Your task to perform on an android device: turn off translation in the chrome app Image 0: 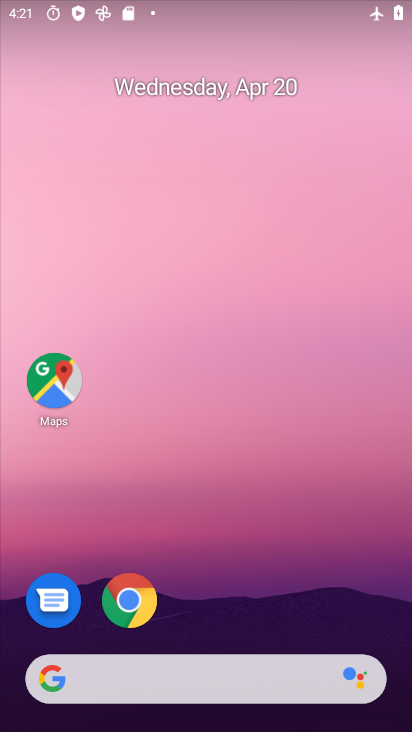
Step 0: click (131, 605)
Your task to perform on an android device: turn off translation in the chrome app Image 1: 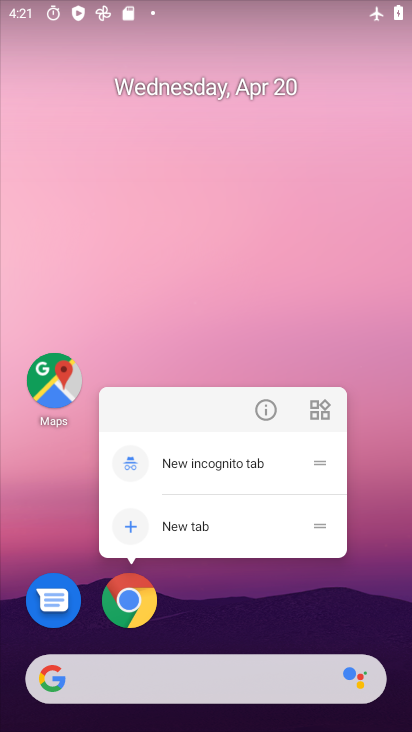
Step 1: click (221, 590)
Your task to perform on an android device: turn off translation in the chrome app Image 2: 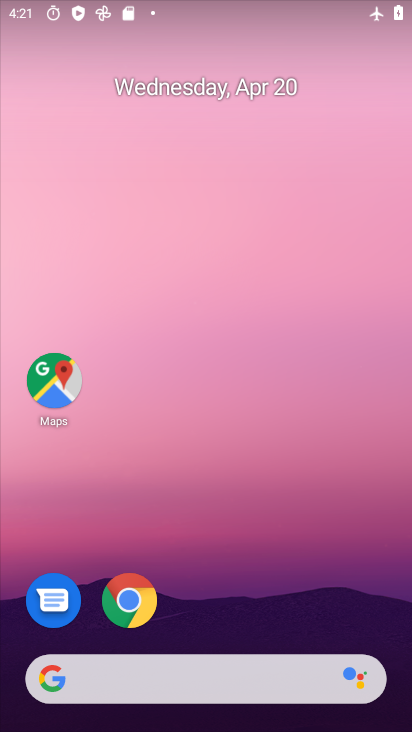
Step 2: drag from (223, 603) to (205, 169)
Your task to perform on an android device: turn off translation in the chrome app Image 3: 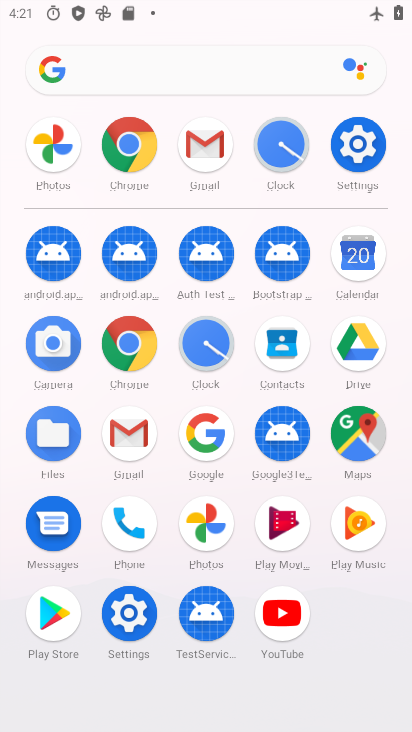
Step 3: click (132, 347)
Your task to perform on an android device: turn off translation in the chrome app Image 4: 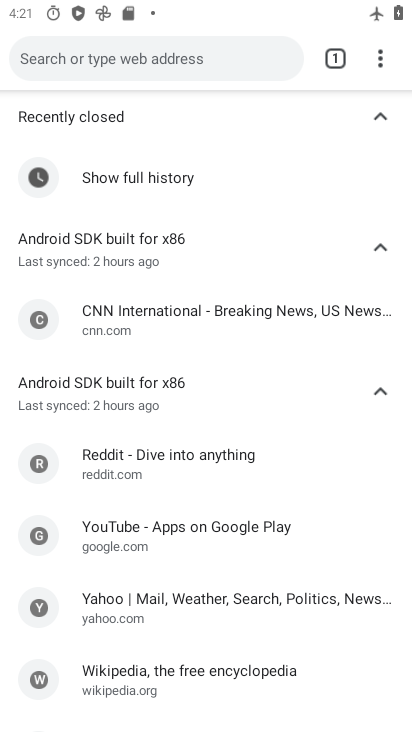
Step 4: click (379, 48)
Your task to perform on an android device: turn off translation in the chrome app Image 5: 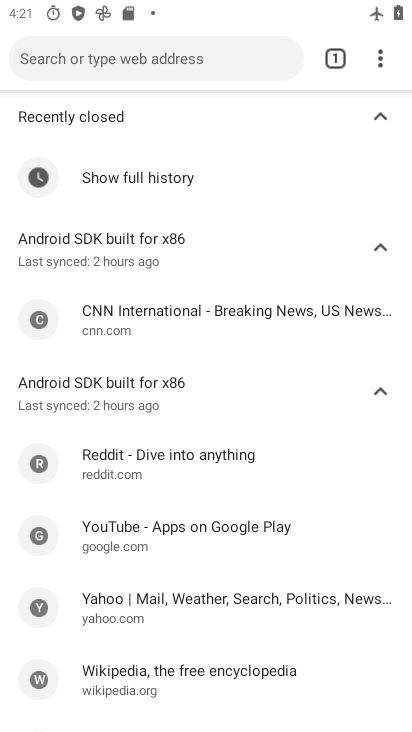
Step 5: drag from (378, 52) to (225, 417)
Your task to perform on an android device: turn off translation in the chrome app Image 6: 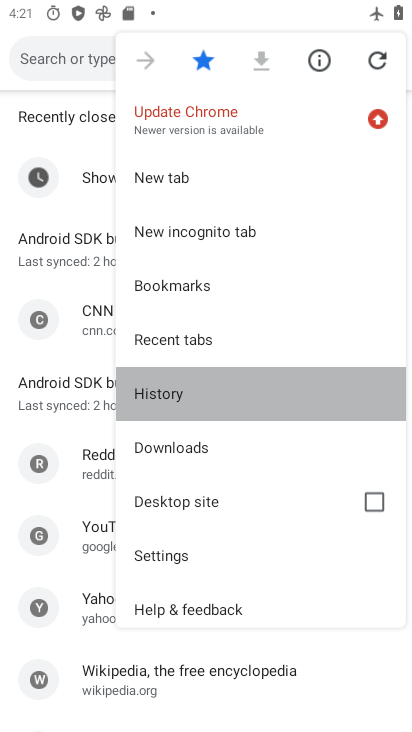
Step 6: drag from (217, 416) to (214, 489)
Your task to perform on an android device: turn off translation in the chrome app Image 7: 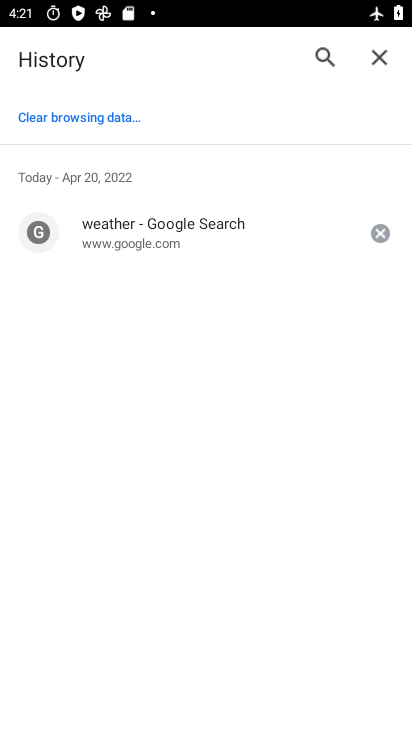
Step 7: click (373, 53)
Your task to perform on an android device: turn off translation in the chrome app Image 8: 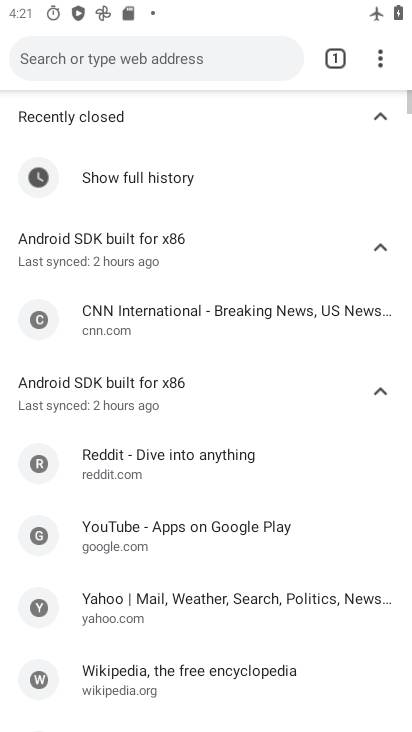
Step 8: drag from (385, 51) to (211, 559)
Your task to perform on an android device: turn off translation in the chrome app Image 9: 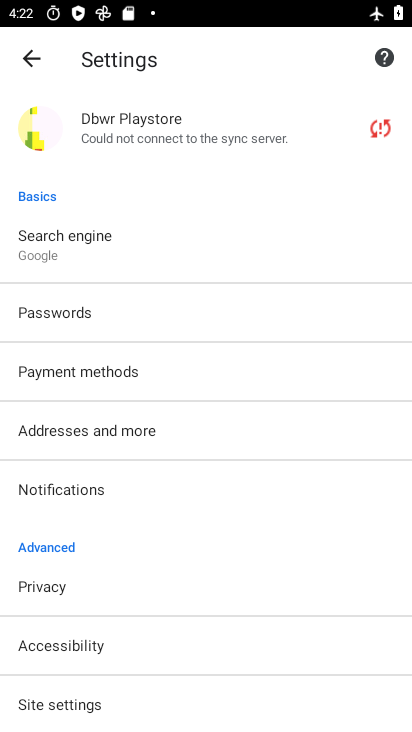
Step 9: drag from (209, 570) to (192, 268)
Your task to perform on an android device: turn off translation in the chrome app Image 10: 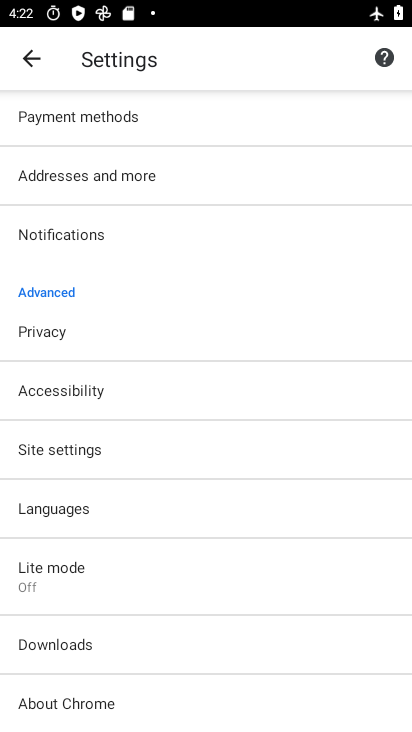
Step 10: click (69, 508)
Your task to perform on an android device: turn off translation in the chrome app Image 11: 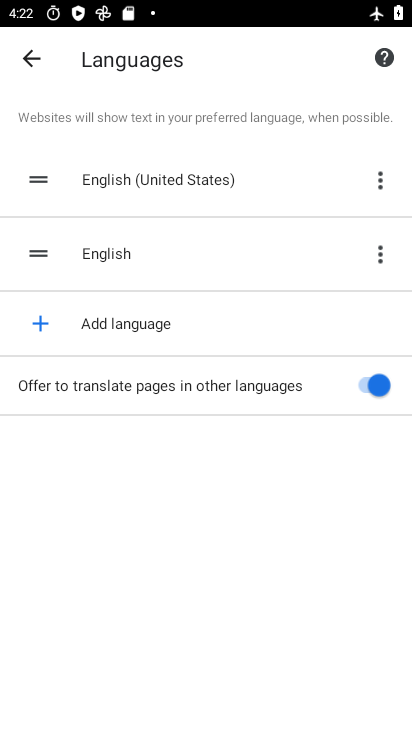
Step 11: click (359, 374)
Your task to perform on an android device: turn off translation in the chrome app Image 12: 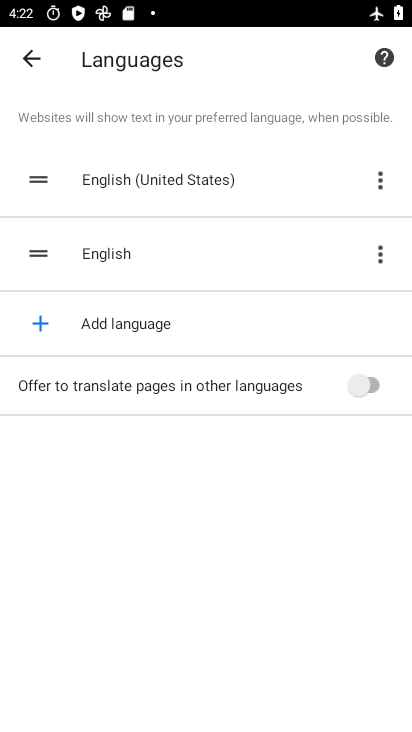
Step 12: task complete